Your task to perform on an android device: See recent photos Image 0: 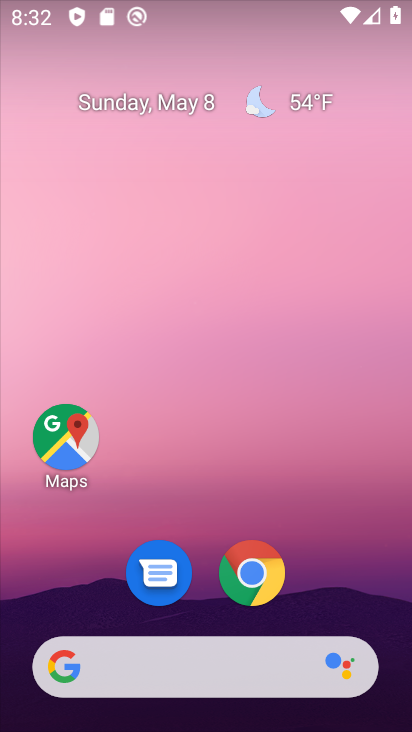
Step 0: drag from (210, 729) to (197, 221)
Your task to perform on an android device: See recent photos Image 1: 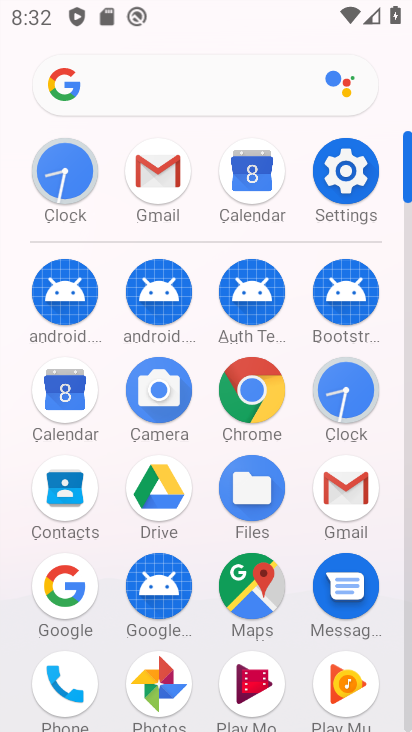
Step 1: drag from (200, 637) to (190, 353)
Your task to perform on an android device: See recent photos Image 2: 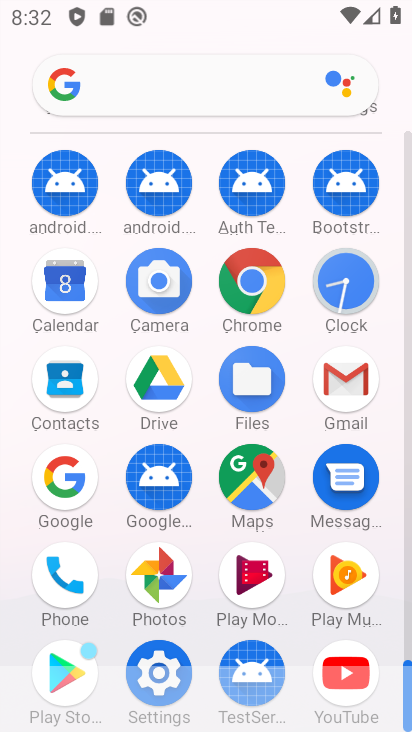
Step 2: click (155, 573)
Your task to perform on an android device: See recent photos Image 3: 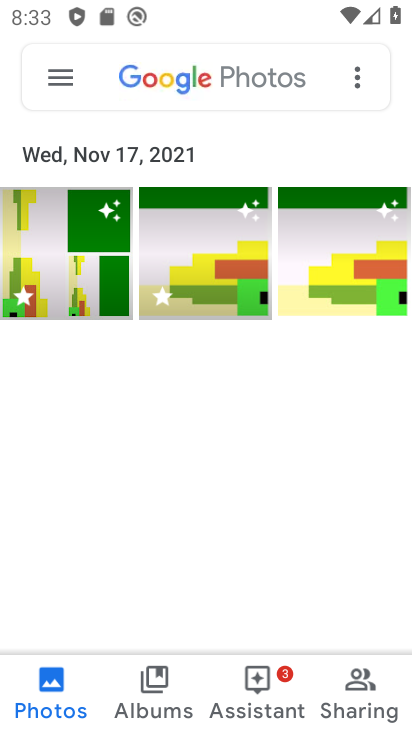
Step 3: task complete